Your task to perform on an android device: make emails show in primary in the gmail app Image 0: 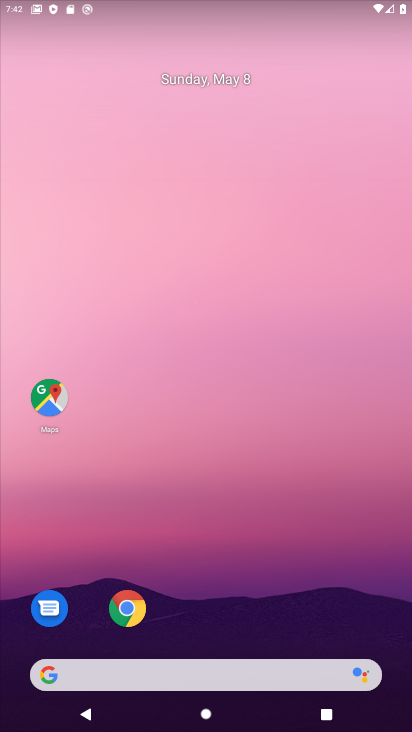
Step 0: drag from (252, 602) to (285, 214)
Your task to perform on an android device: make emails show in primary in the gmail app Image 1: 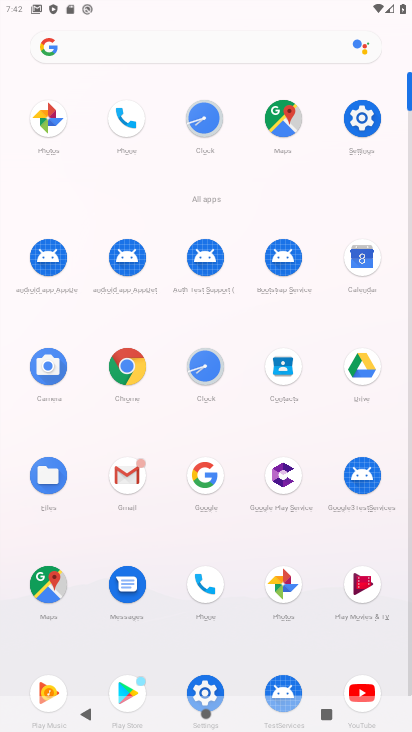
Step 1: click (122, 467)
Your task to perform on an android device: make emails show in primary in the gmail app Image 2: 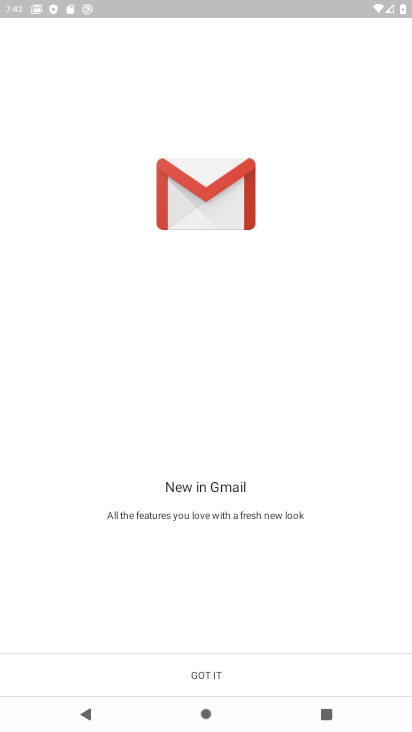
Step 2: click (200, 667)
Your task to perform on an android device: make emails show in primary in the gmail app Image 3: 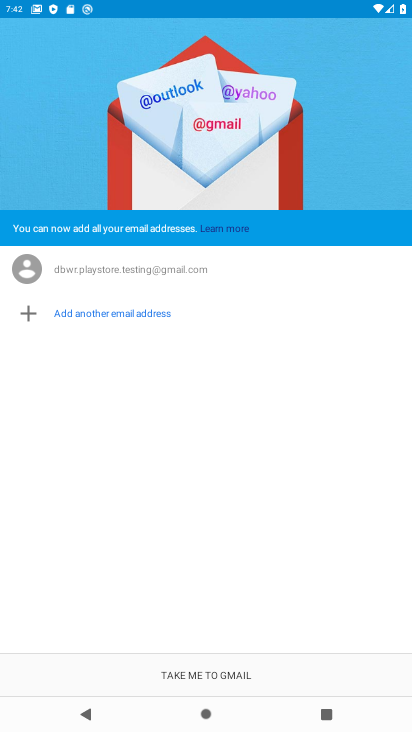
Step 3: click (200, 669)
Your task to perform on an android device: make emails show in primary in the gmail app Image 4: 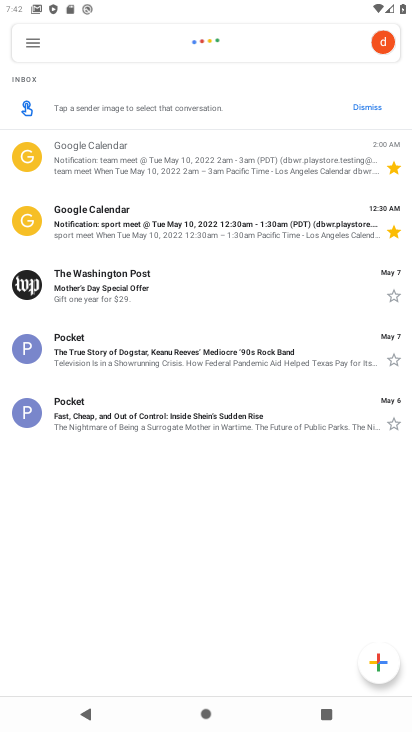
Step 4: click (32, 48)
Your task to perform on an android device: make emails show in primary in the gmail app Image 5: 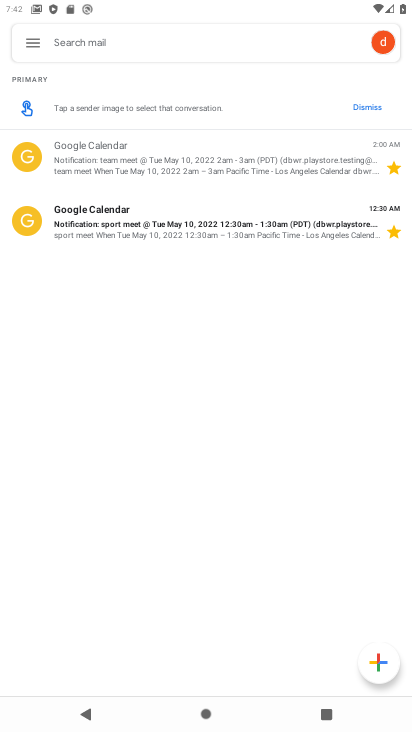
Step 5: click (24, 37)
Your task to perform on an android device: make emails show in primary in the gmail app Image 6: 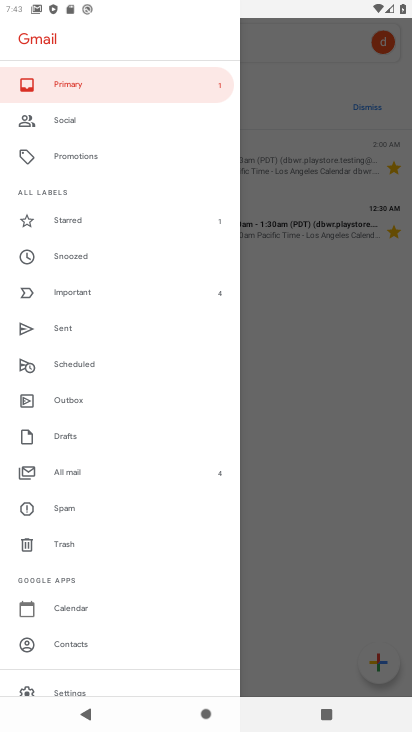
Step 6: click (93, 85)
Your task to perform on an android device: make emails show in primary in the gmail app Image 7: 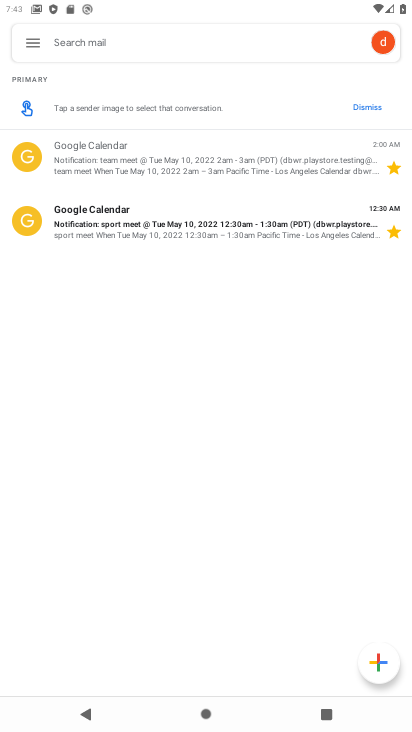
Step 7: click (114, 147)
Your task to perform on an android device: make emails show in primary in the gmail app Image 8: 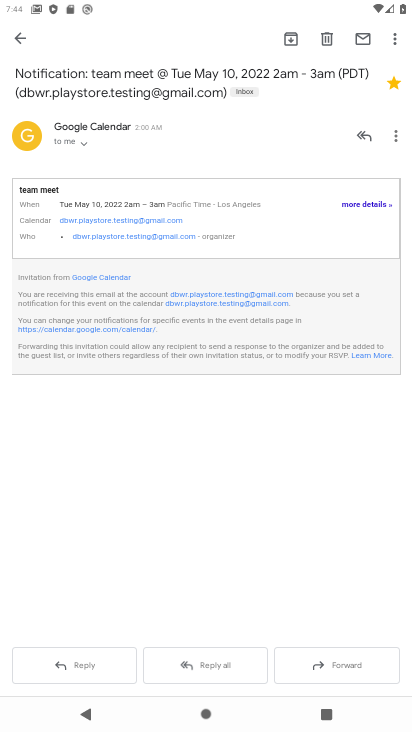
Step 8: task complete